Your task to perform on an android device: open wifi settings Image 0: 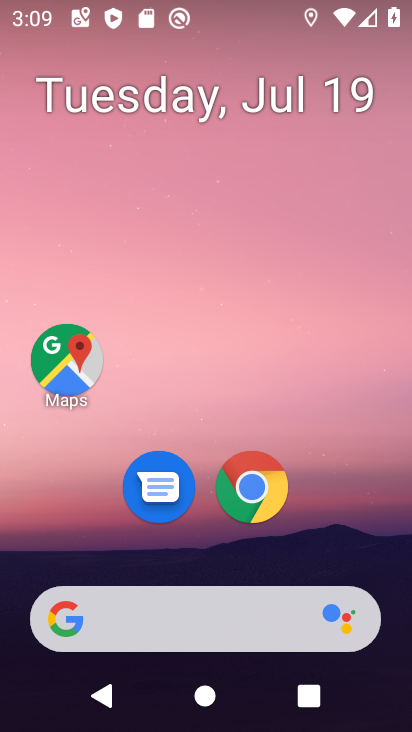
Step 0: drag from (101, 63) to (178, 644)
Your task to perform on an android device: open wifi settings Image 1: 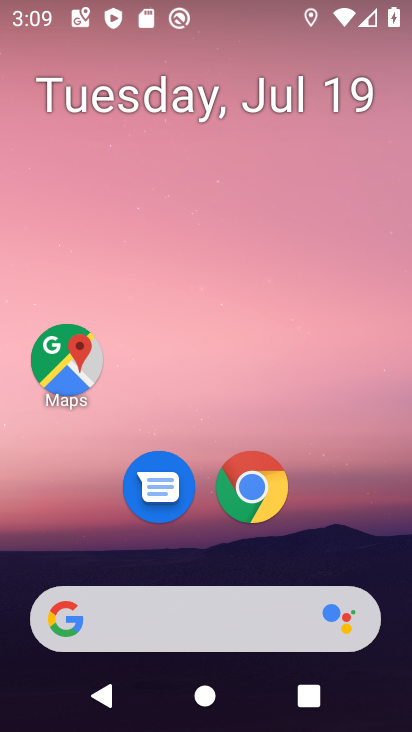
Step 1: drag from (157, 21) to (164, 617)
Your task to perform on an android device: open wifi settings Image 2: 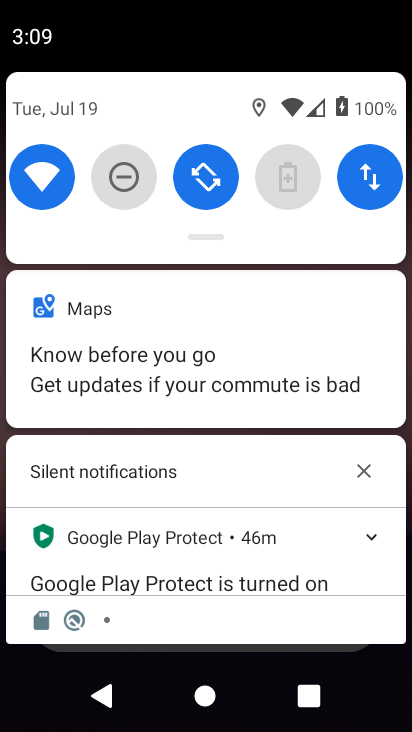
Step 2: click (46, 180)
Your task to perform on an android device: open wifi settings Image 3: 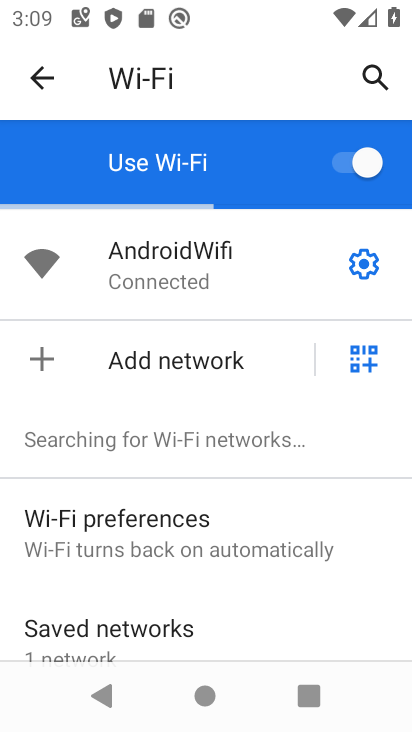
Step 3: task complete